Your task to perform on an android device: empty trash in the gmail app Image 0: 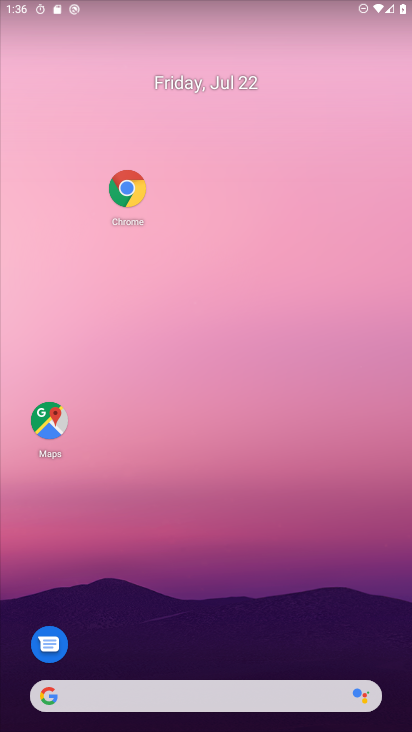
Step 0: drag from (138, 660) to (186, 71)
Your task to perform on an android device: empty trash in the gmail app Image 1: 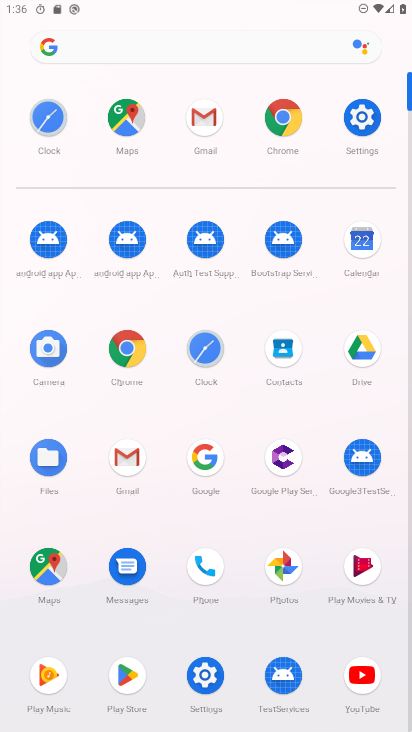
Step 1: click (206, 101)
Your task to perform on an android device: empty trash in the gmail app Image 2: 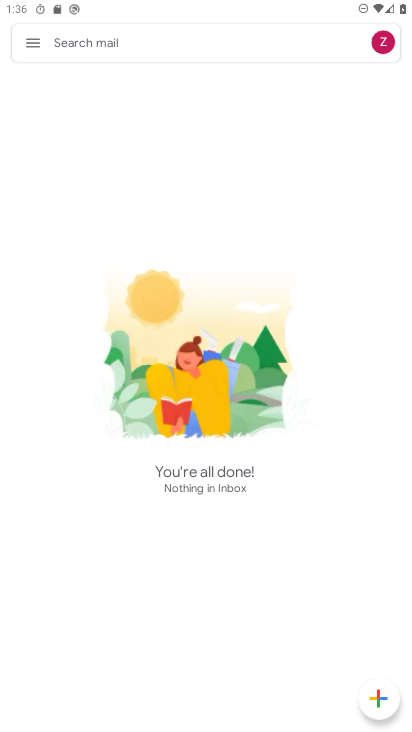
Step 2: click (19, 44)
Your task to perform on an android device: empty trash in the gmail app Image 3: 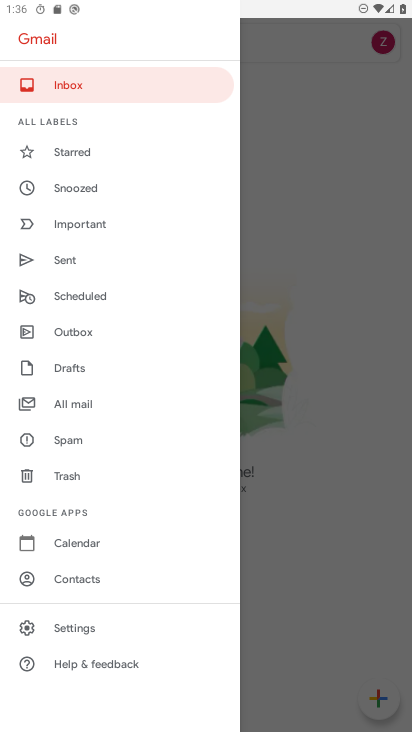
Step 3: click (58, 489)
Your task to perform on an android device: empty trash in the gmail app Image 4: 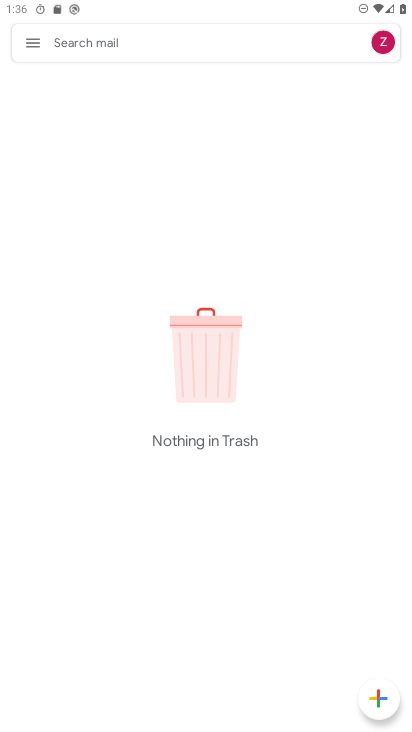
Step 4: task complete